Your task to perform on an android device: Toggle the flashlight Image 0: 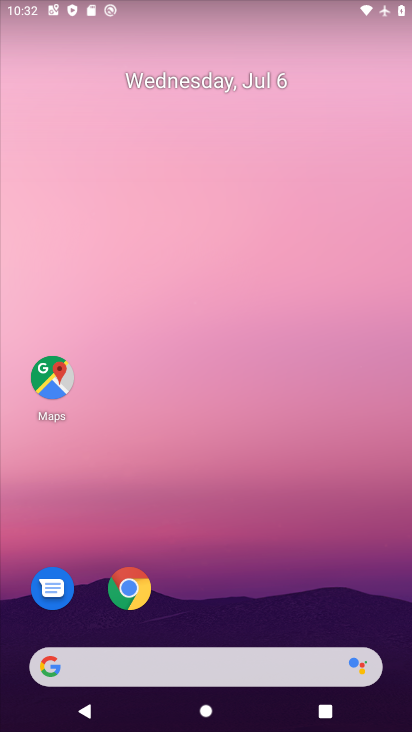
Step 0: drag from (193, 2) to (222, 434)
Your task to perform on an android device: Toggle the flashlight Image 1: 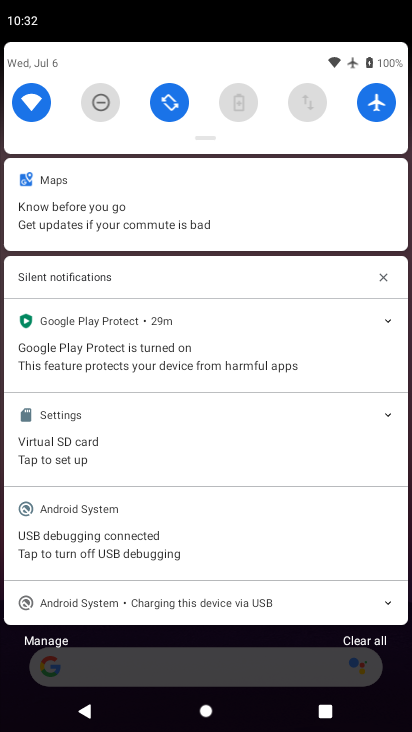
Step 1: task complete